Your task to perform on an android device: Go to network settings Image 0: 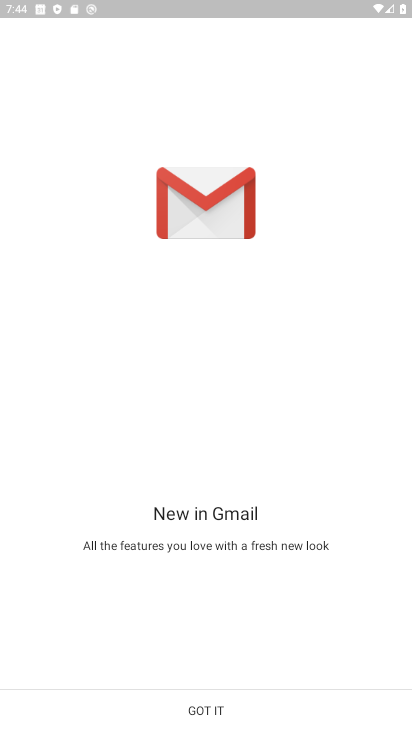
Step 0: task complete